Your task to perform on an android device: turn off data saver in the chrome app Image 0: 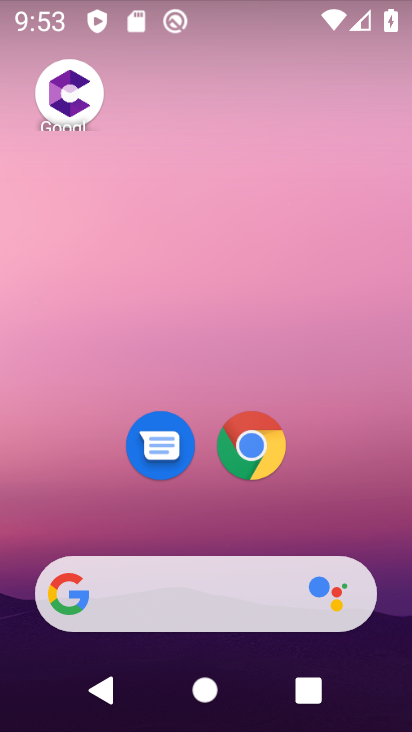
Step 0: click (250, 447)
Your task to perform on an android device: turn off data saver in the chrome app Image 1: 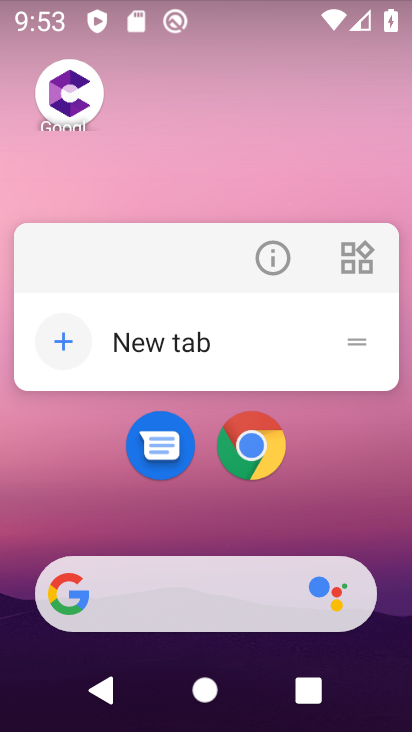
Step 1: click (331, 484)
Your task to perform on an android device: turn off data saver in the chrome app Image 2: 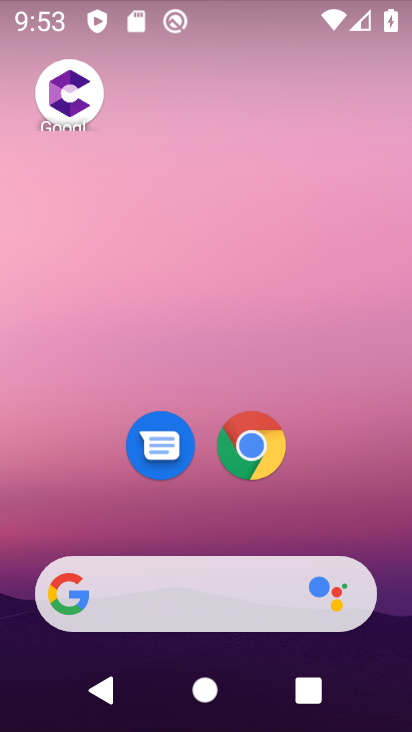
Step 2: drag from (333, 485) to (327, 83)
Your task to perform on an android device: turn off data saver in the chrome app Image 3: 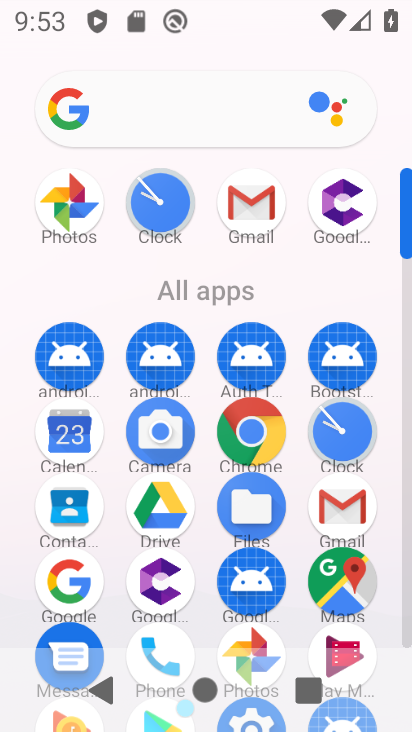
Step 3: click (256, 436)
Your task to perform on an android device: turn off data saver in the chrome app Image 4: 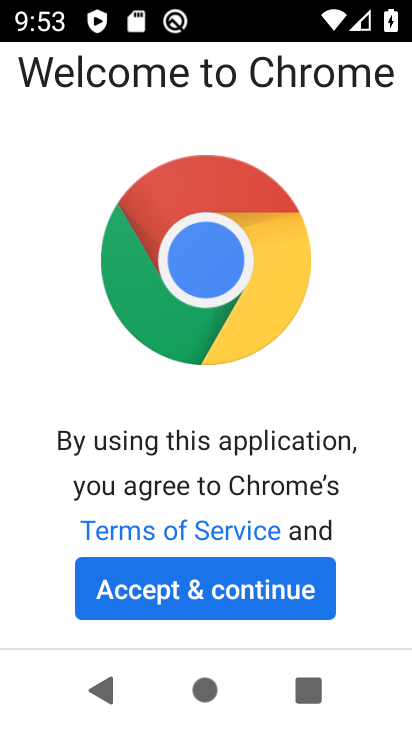
Step 4: click (243, 600)
Your task to perform on an android device: turn off data saver in the chrome app Image 5: 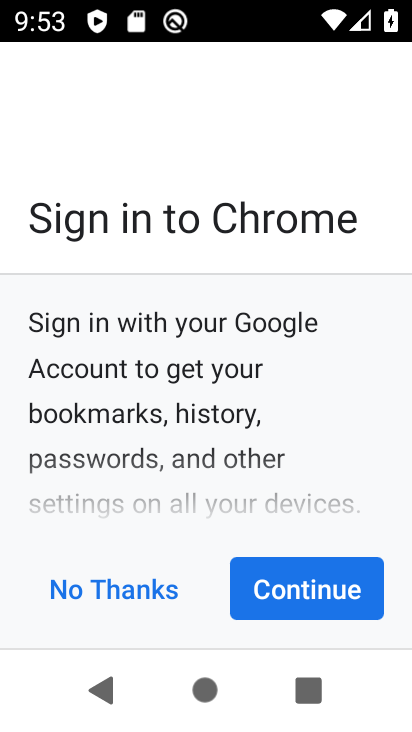
Step 5: click (243, 600)
Your task to perform on an android device: turn off data saver in the chrome app Image 6: 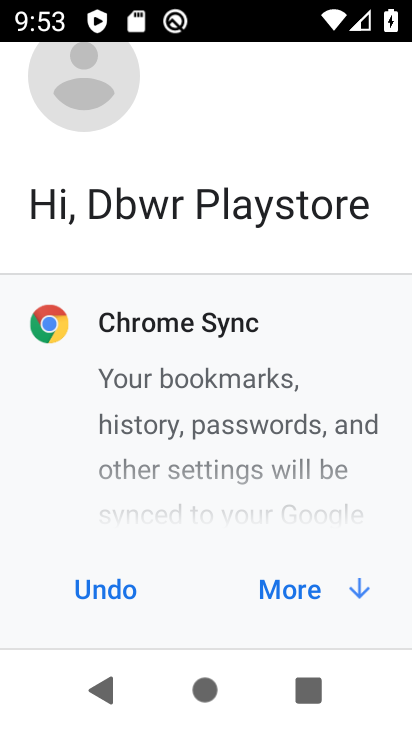
Step 6: click (263, 589)
Your task to perform on an android device: turn off data saver in the chrome app Image 7: 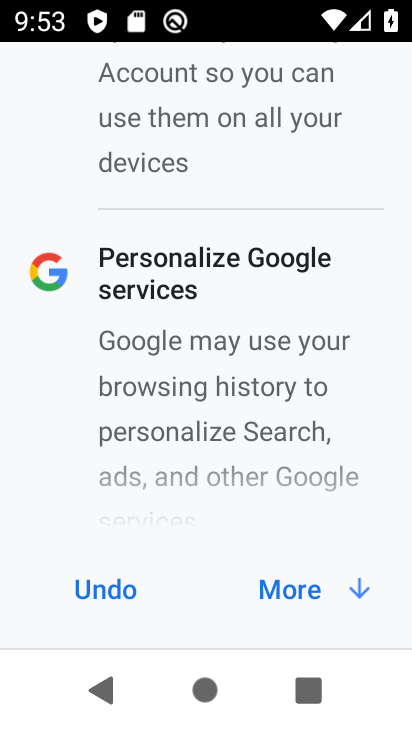
Step 7: click (263, 589)
Your task to perform on an android device: turn off data saver in the chrome app Image 8: 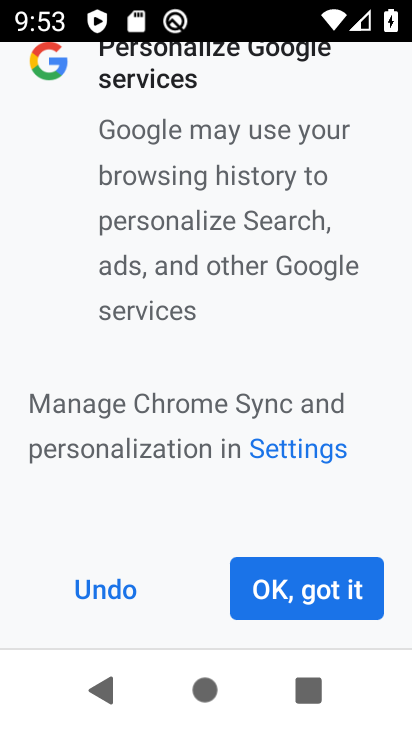
Step 8: click (264, 588)
Your task to perform on an android device: turn off data saver in the chrome app Image 9: 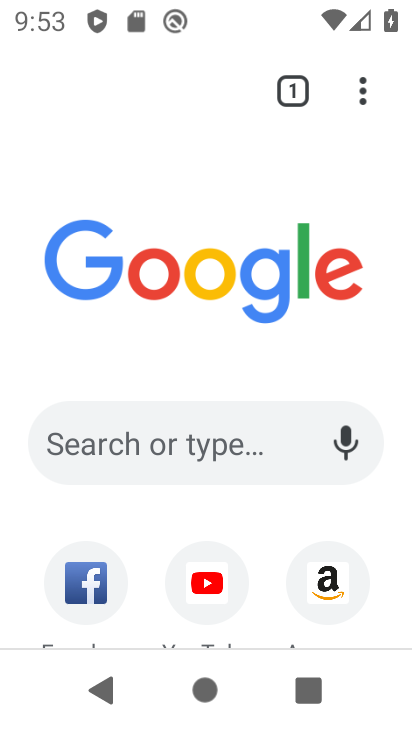
Step 9: drag from (366, 91) to (179, 492)
Your task to perform on an android device: turn off data saver in the chrome app Image 10: 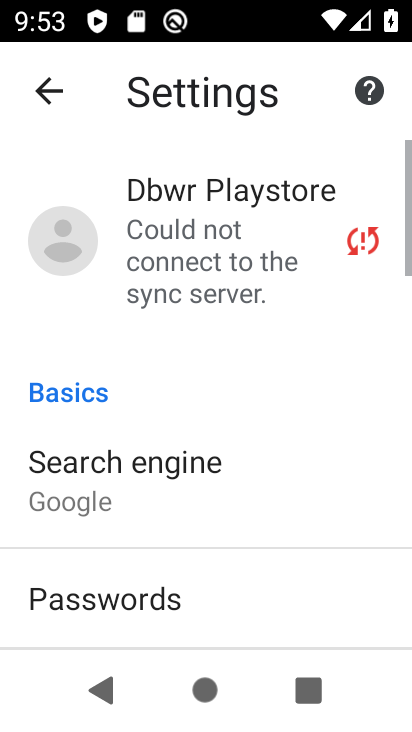
Step 10: drag from (183, 475) to (219, 24)
Your task to perform on an android device: turn off data saver in the chrome app Image 11: 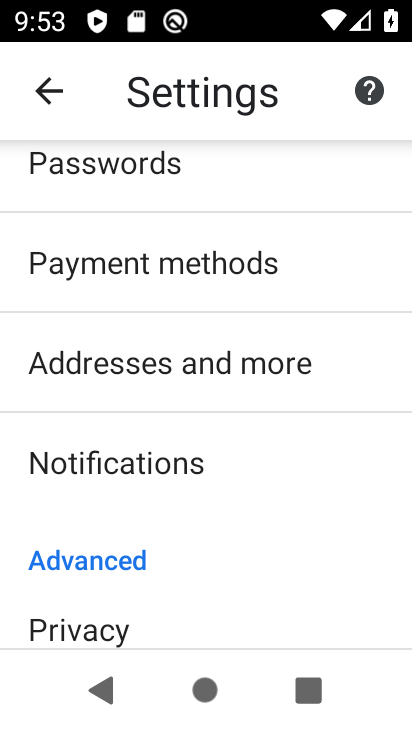
Step 11: drag from (266, 514) to (274, 143)
Your task to perform on an android device: turn off data saver in the chrome app Image 12: 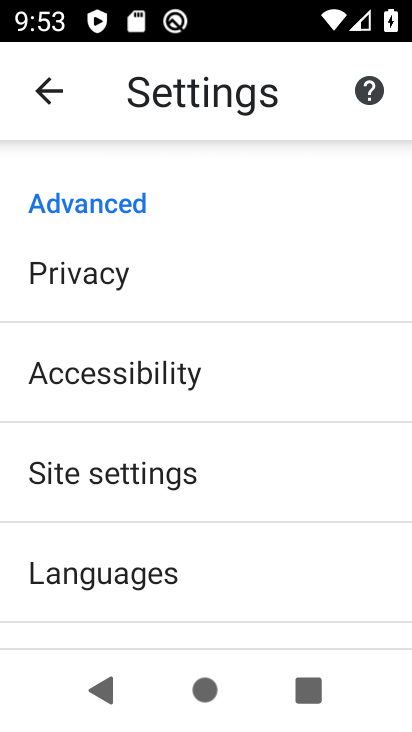
Step 12: drag from (194, 474) to (224, 202)
Your task to perform on an android device: turn off data saver in the chrome app Image 13: 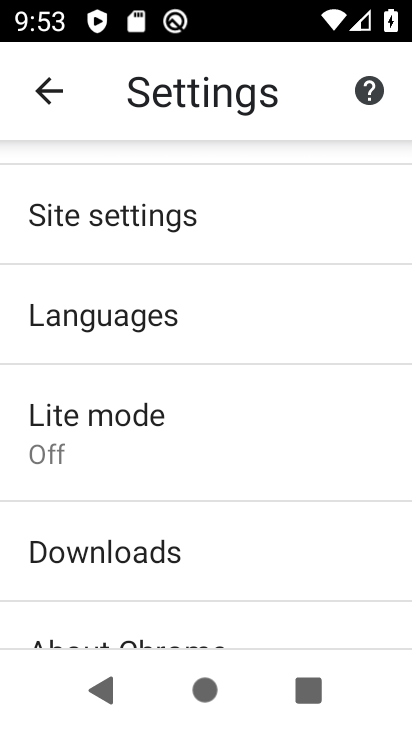
Step 13: click (137, 395)
Your task to perform on an android device: turn off data saver in the chrome app Image 14: 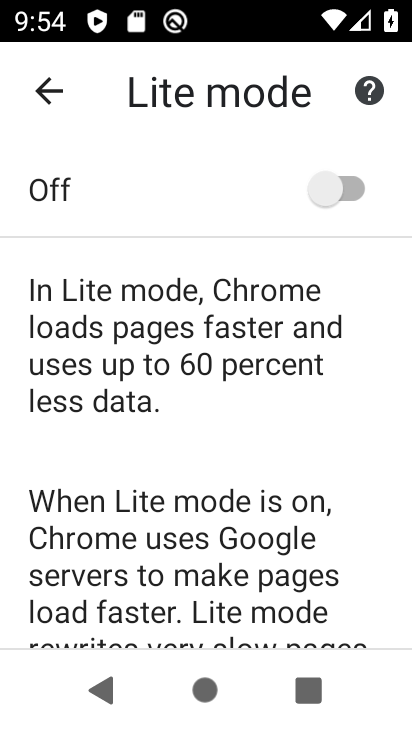
Step 14: task complete